Your task to perform on an android device: Open privacy settings Image 0: 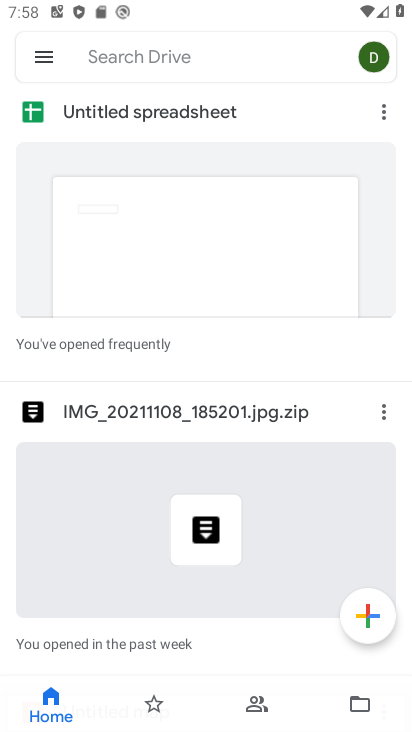
Step 0: press home button
Your task to perform on an android device: Open privacy settings Image 1: 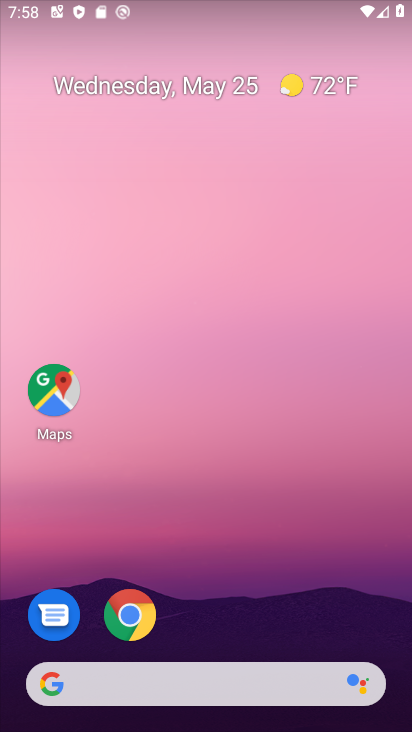
Step 1: drag from (251, 510) to (304, 26)
Your task to perform on an android device: Open privacy settings Image 2: 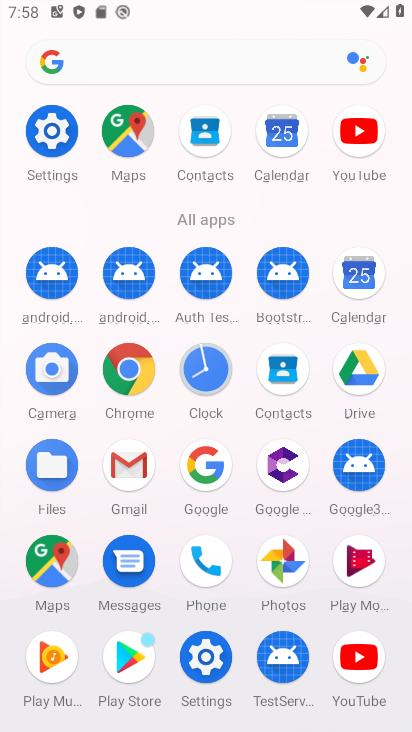
Step 2: click (56, 129)
Your task to perform on an android device: Open privacy settings Image 3: 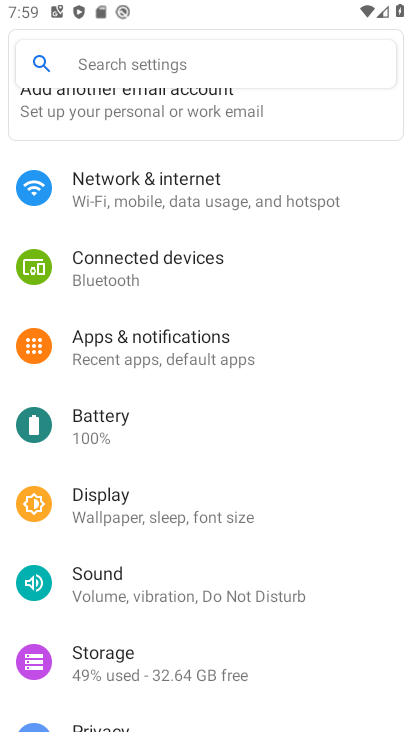
Step 3: drag from (185, 508) to (227, 100)
Your task to perform on an android device: Open privacy settings Image 4: 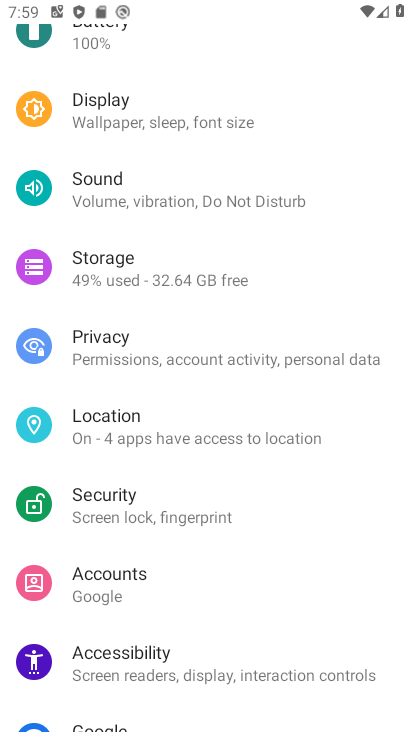
Step 4: click (213, 356)
Your task to perform on an android device: Open privacy settings Image 5: 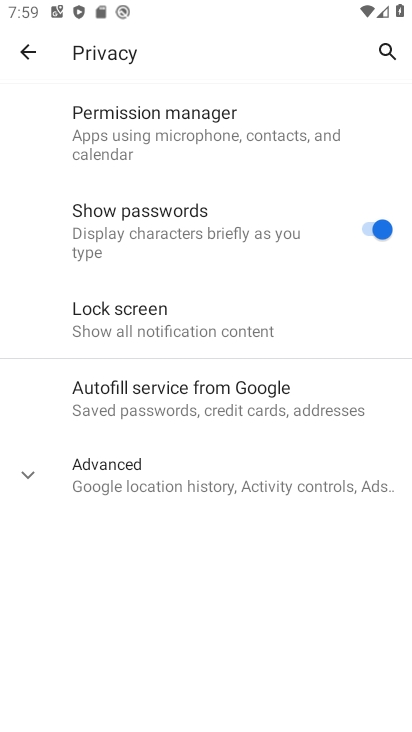
Step 5: task complete